Your task to perform on an android device: Find coffee shops on Maps Image 0: 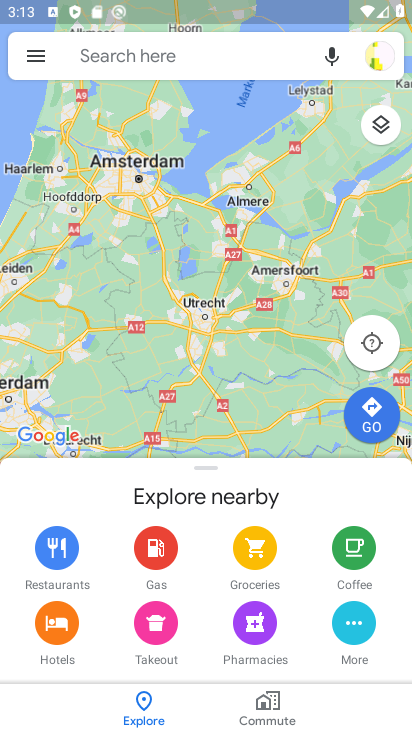
Step 0: press home button
Your task to perform on an android device: Find coffee shops on Maps Image 1: 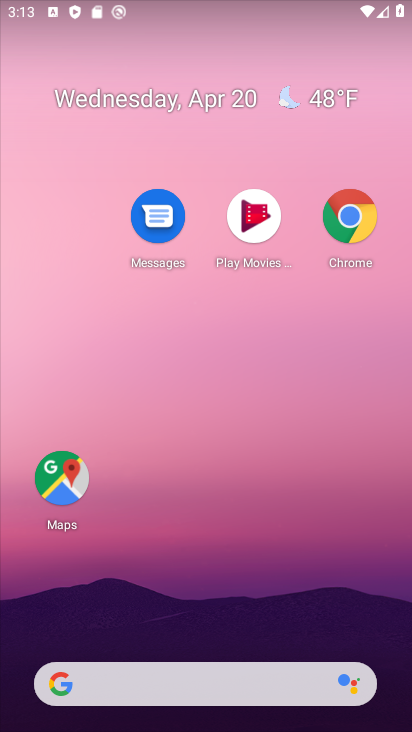
Step 1: click (63, 511)
Your task to perform on an android device: Find coffee shops on Maps Image 2: 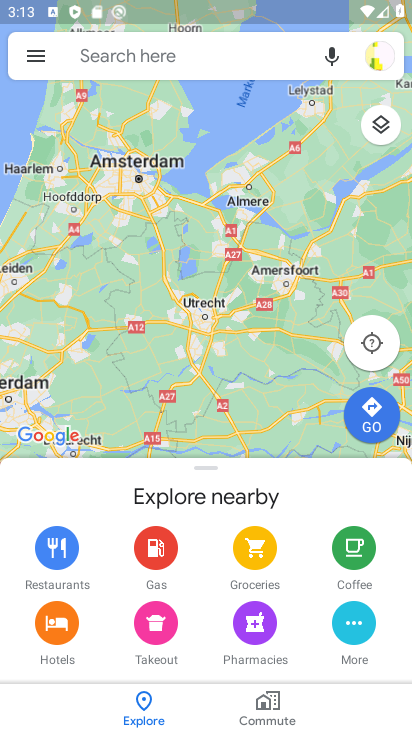
Step 2: click (225, 45)
Your task to perform on an android device: Find coffee shops on Maps Image 3: 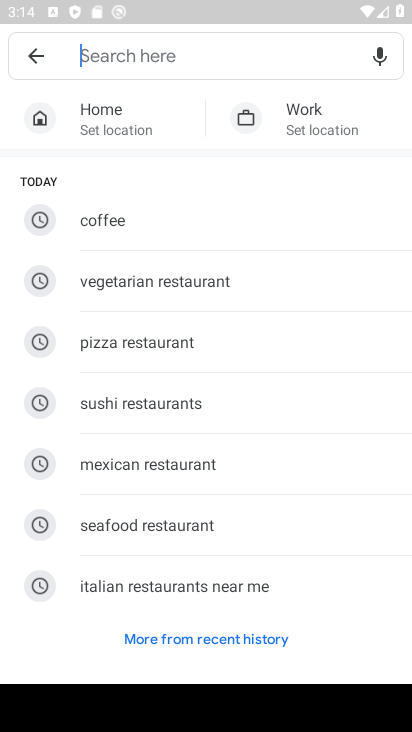
Step 3: click (203, 221)
Your task to perform on an android device: Find coffee shops on Maps Image 4: 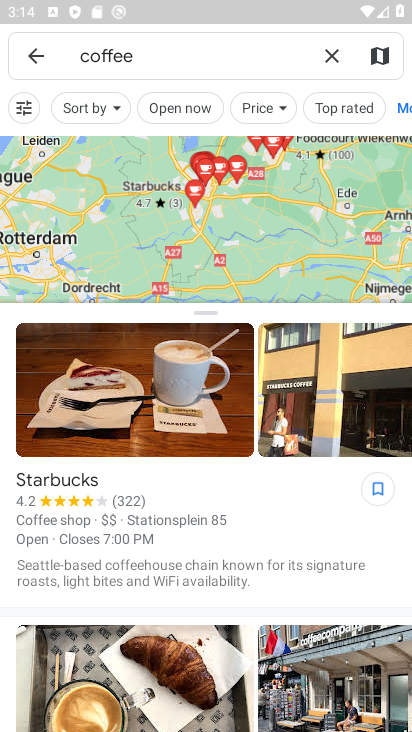
Step 4: task complete